Your task to perform on an android device: Open settings Image 0: 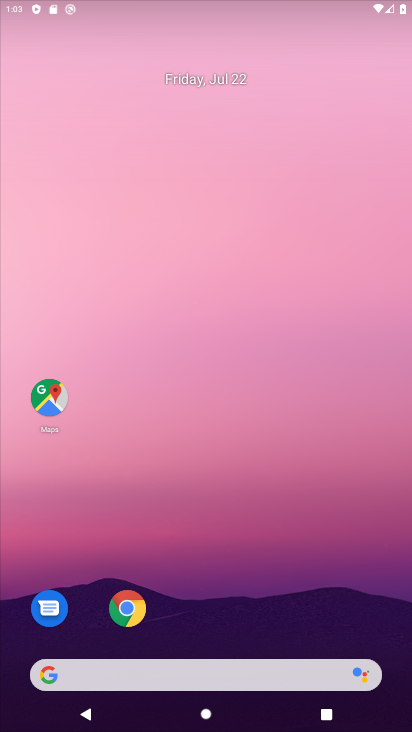
Step 0: drag from (386, 690) to (290, 112)
Your task to perform on an android device: Open settings Image 1: 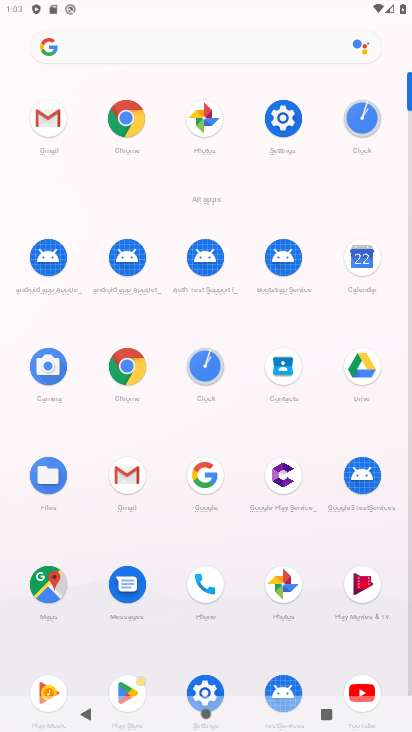
Step 1: click (202, 680)
Your task to perform on an android device: Open settings Image 2: 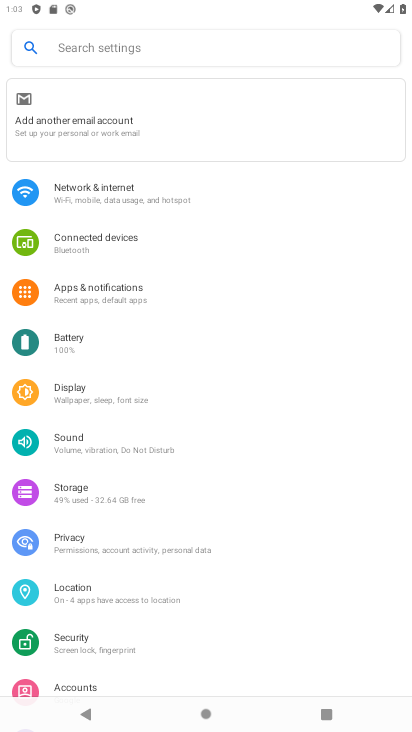
Step 2: task complete